Your task to perform on an android device: Find coffee shops on Maps Image 0: 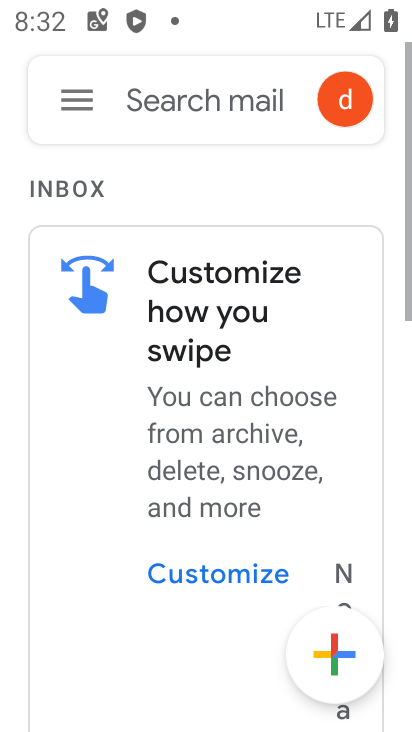
Step 0: press home button
Your task to perform on an android device: Find coffee shops on Maps Image 1: 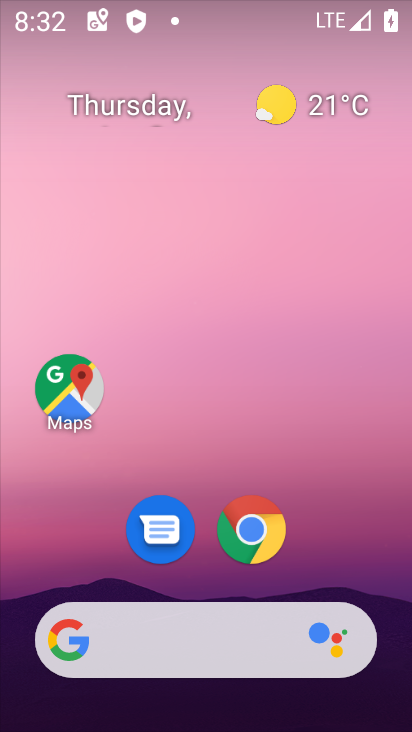
Step 1: click (71, 392)
Your task to perform on an android device: Find coffee shops on Maps Image 2: 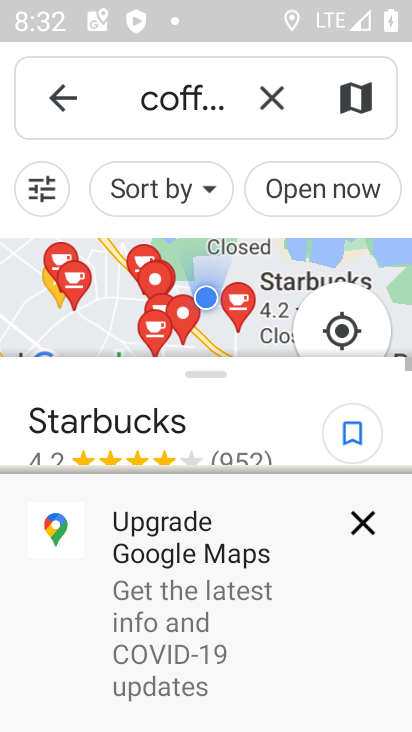
Step 2: click (359, 518)
Your task to perform on an android device: Find coffee shops on Maps Image 3: 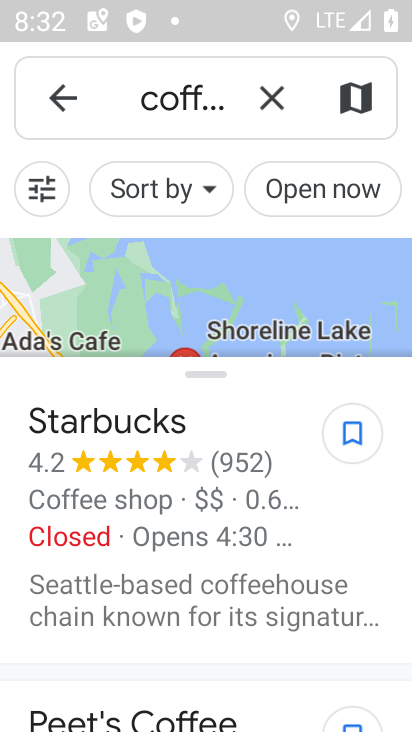
Step 3: task complete